Your task to perform on an android device: Open the Play Movies app and select the watchlist tab. Image 0: 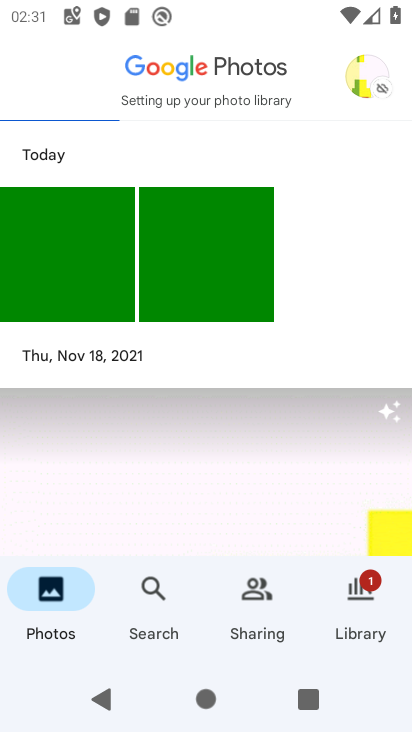
Step 0: press home button
Your task to perform on an android device: Open the Play Movies app and select the watchlist tab. Image 1: 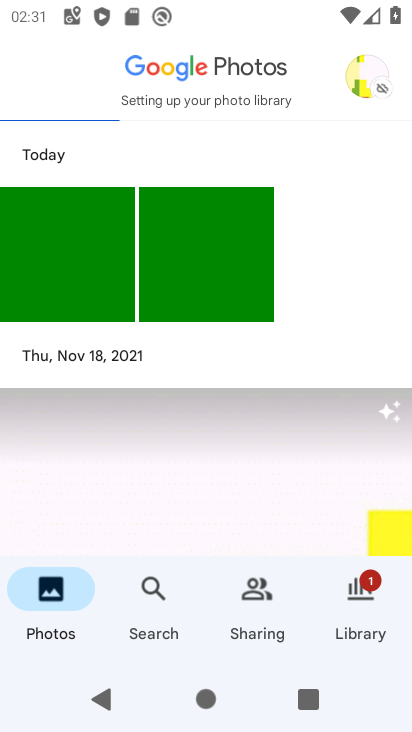
Step 1: drag from (142, 519) to (285, 70)
Your task to perform on an android device: Open the Play Movies app and select the watchlist tab. Image 2: 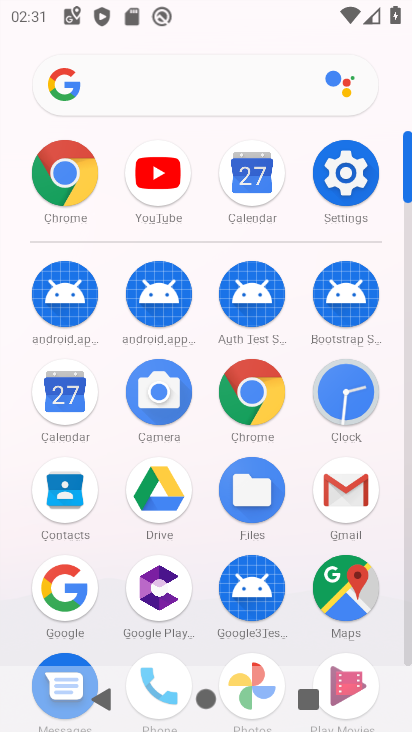
Step 2: drag from (286, 440) to (269, 119)
Your task to perform on an android device: Open the Play Movies app and select the watchlist tab. Image 3: 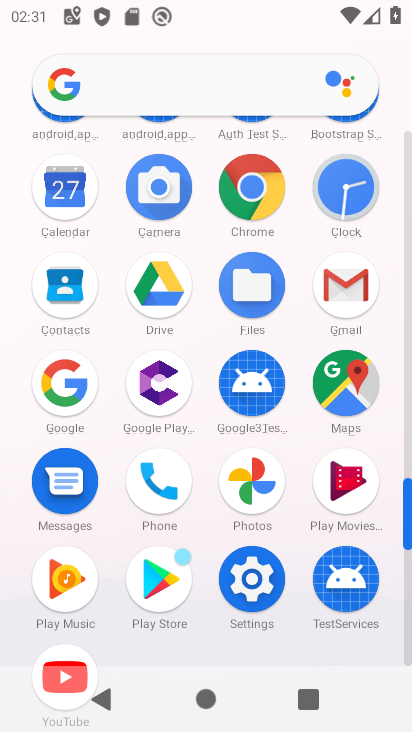
Step 3: click (334, 491)
Your task to perform on an android device: Open the Play Movies app and select the watchlist tab. Image 4: 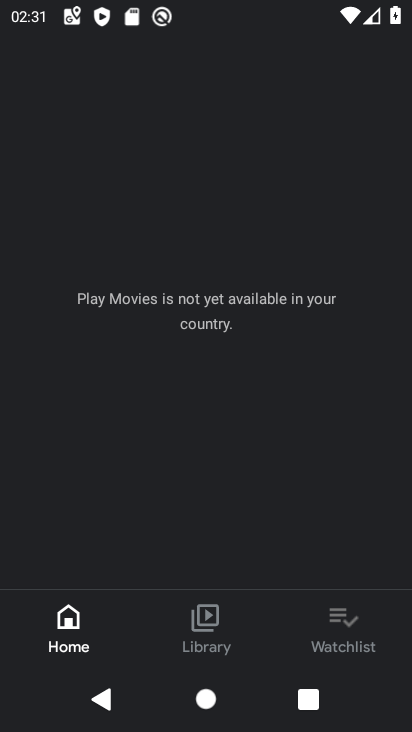
Step 4: click (323, 629)
Your task to perform on an android device: Open the Play Movies app and select the watchlist tab. Image 5: 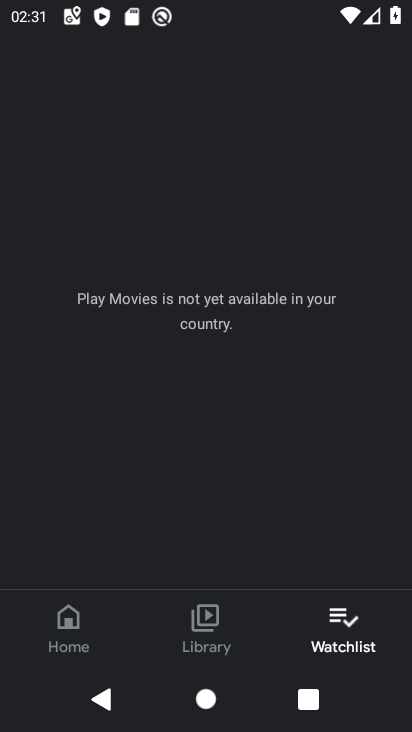
Step 5: task complete